Your task to perform on an android device: Open Amazon Image 0: 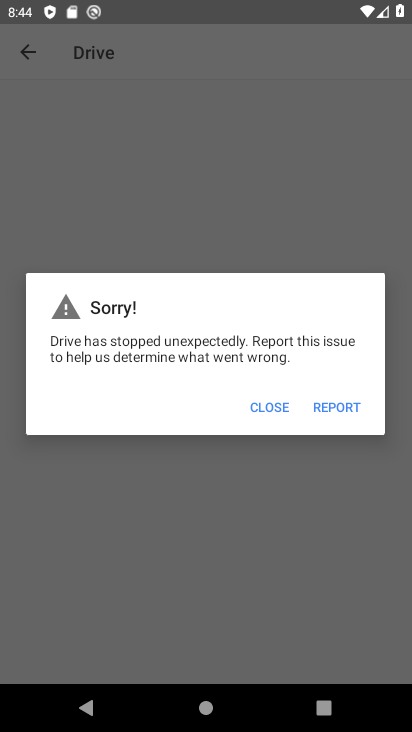
Step 0: press home button
Your task to perform on an android device: Open Amazon Image 1: 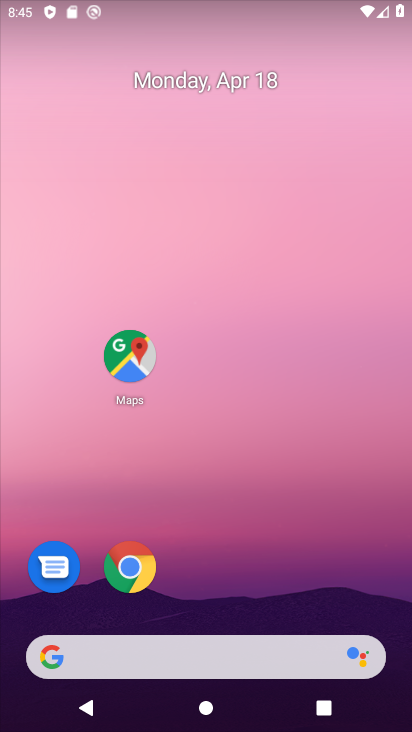
Step 1: click (140, 576)
Your task to perform on an android device: Open Amazon Image 2: 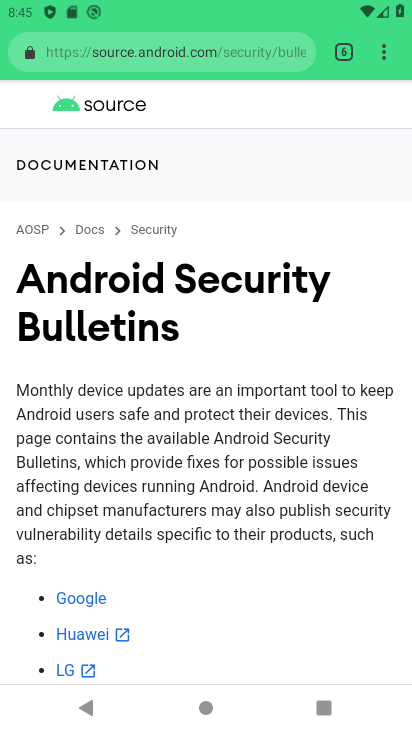
Step 2: click (378, 53)
Your task to perform on an android device: Open Amazon Image 3: 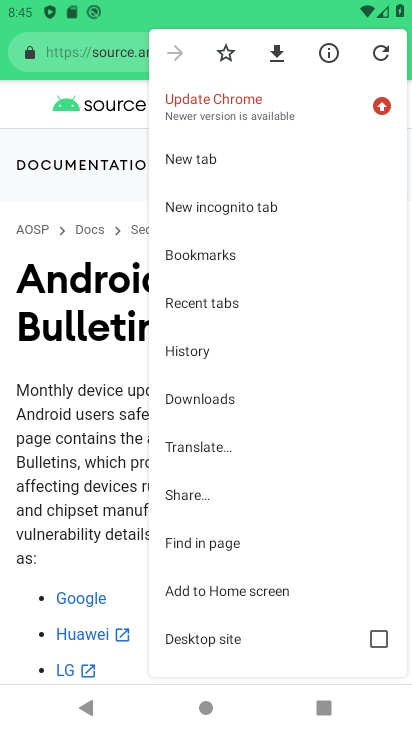
Step 3: click (215, 162)
Your task to perform on an android device: Open Amazon Image 4: 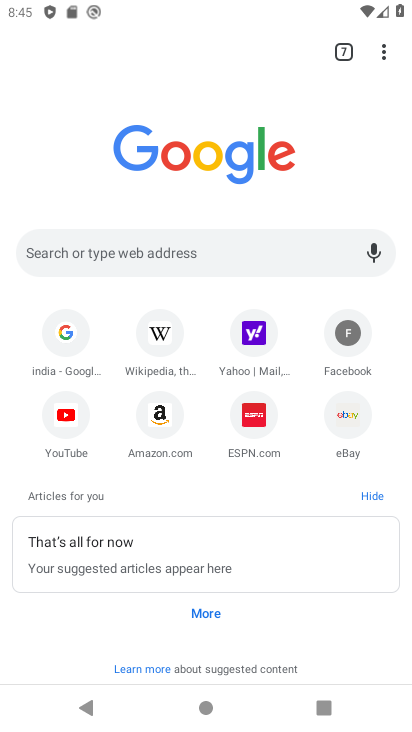
Step 4: click (161, 416)
Your task to perform on an android device: Open Amazon Image 5: 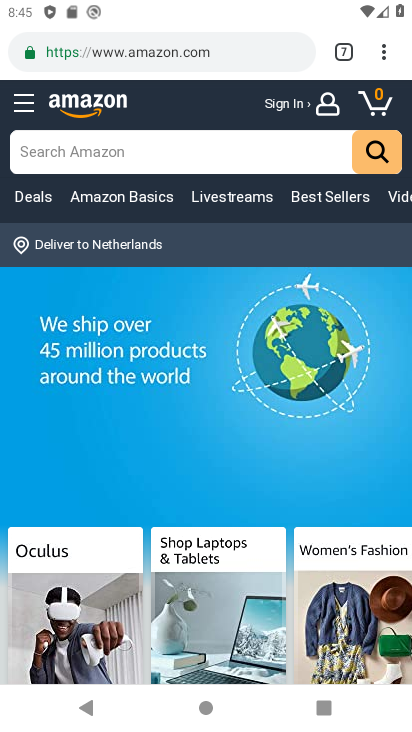
Step 5: task complete